Your task to perform on an android device: install app "AliExpress" Image 0: 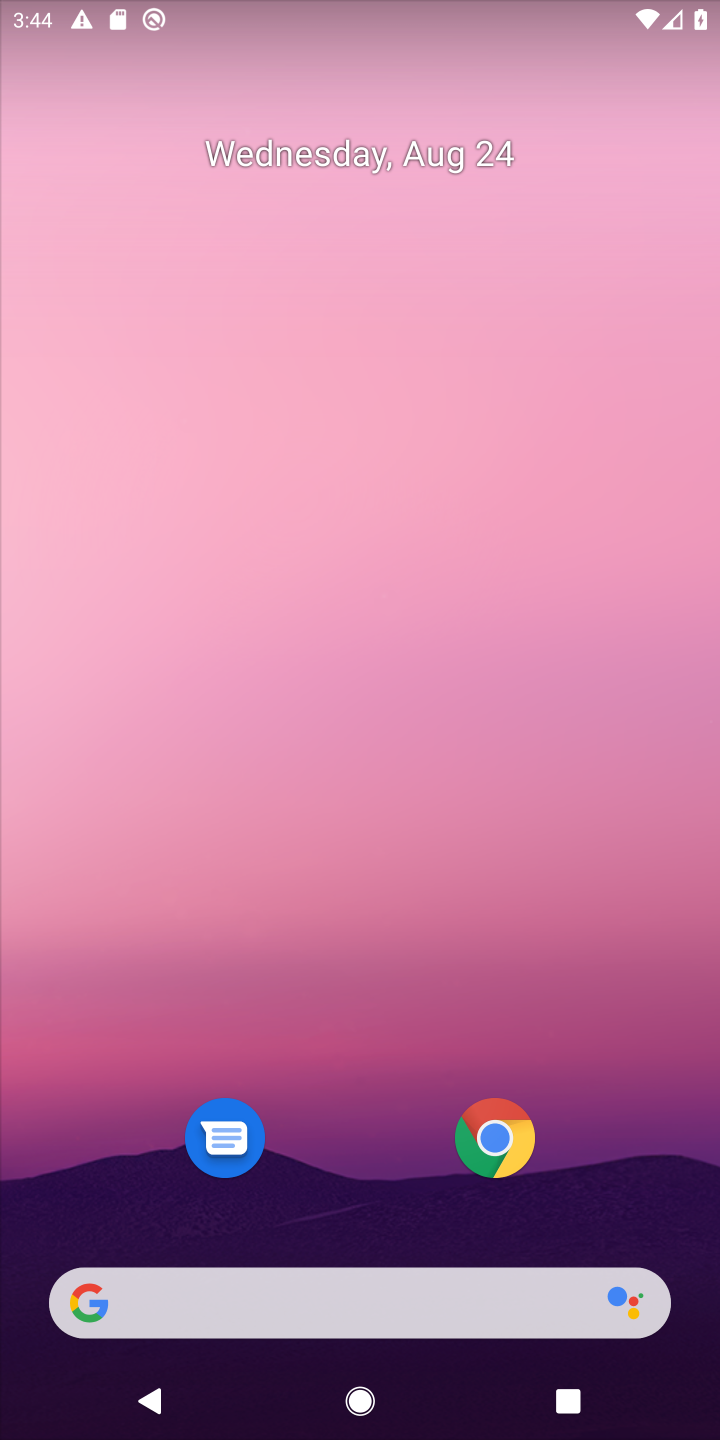
Step 0: drag from (385, 938) to (387, 96)
Your task to perform on an android device: install app "AliExpress" Image 1: 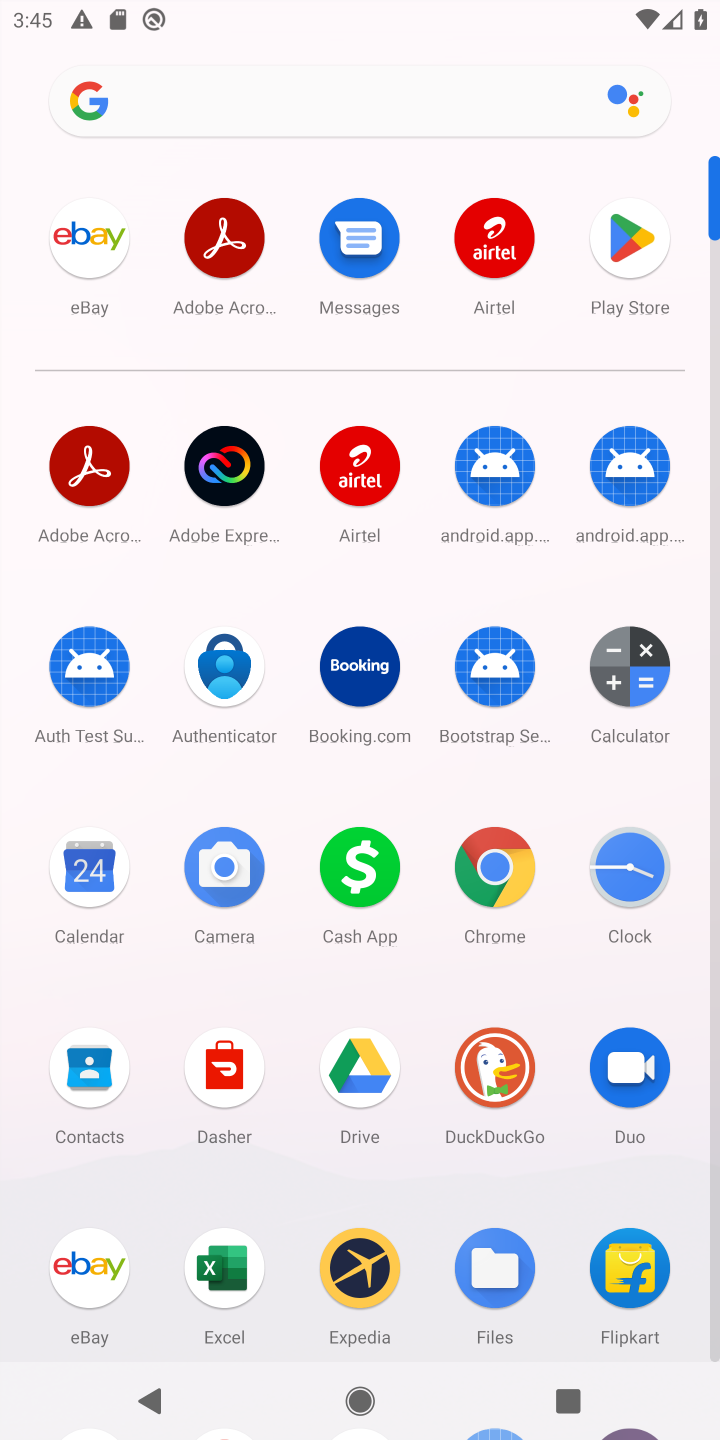
Step 1: click (623, 239)
Your task to perform on an android device: install app "AliExpress" Image 2: 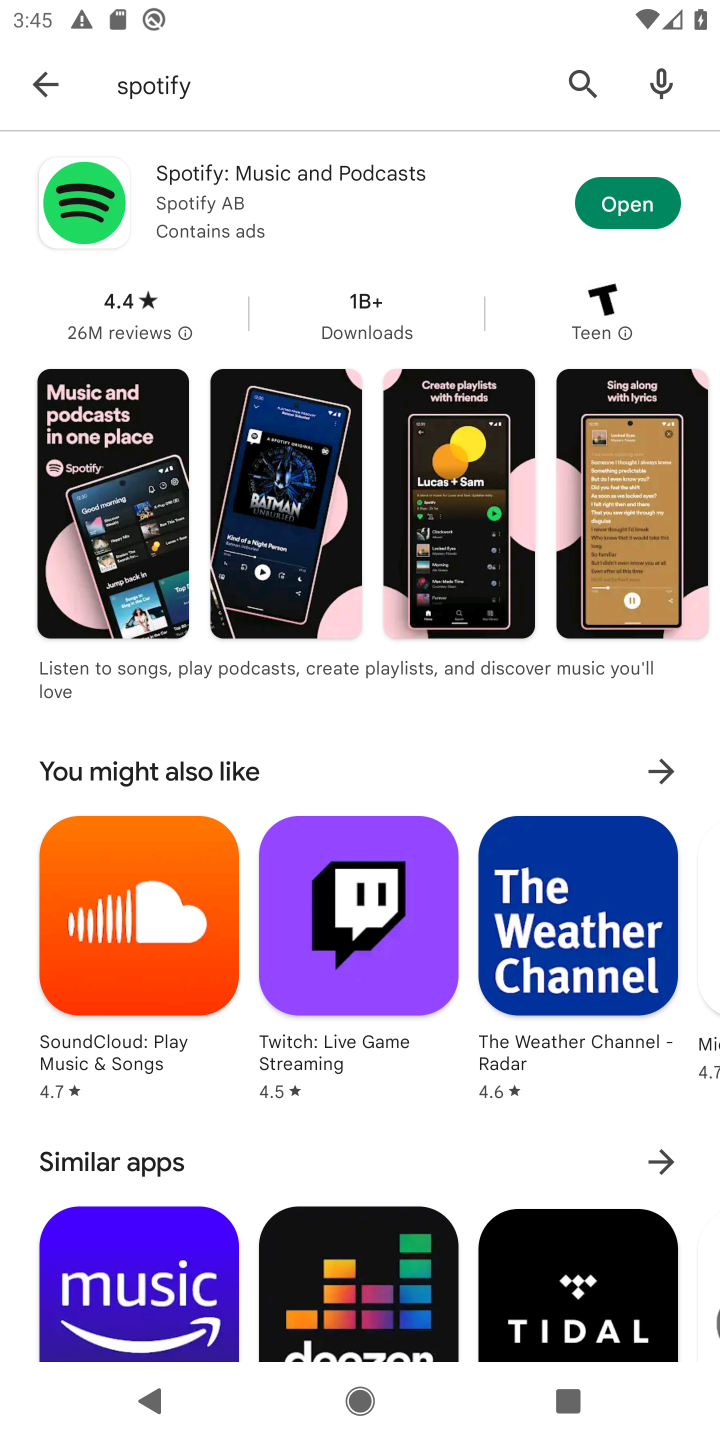
Step 2: click (578, 78)
Your task to perform on an android device: install app "AliExpress" Image 3: 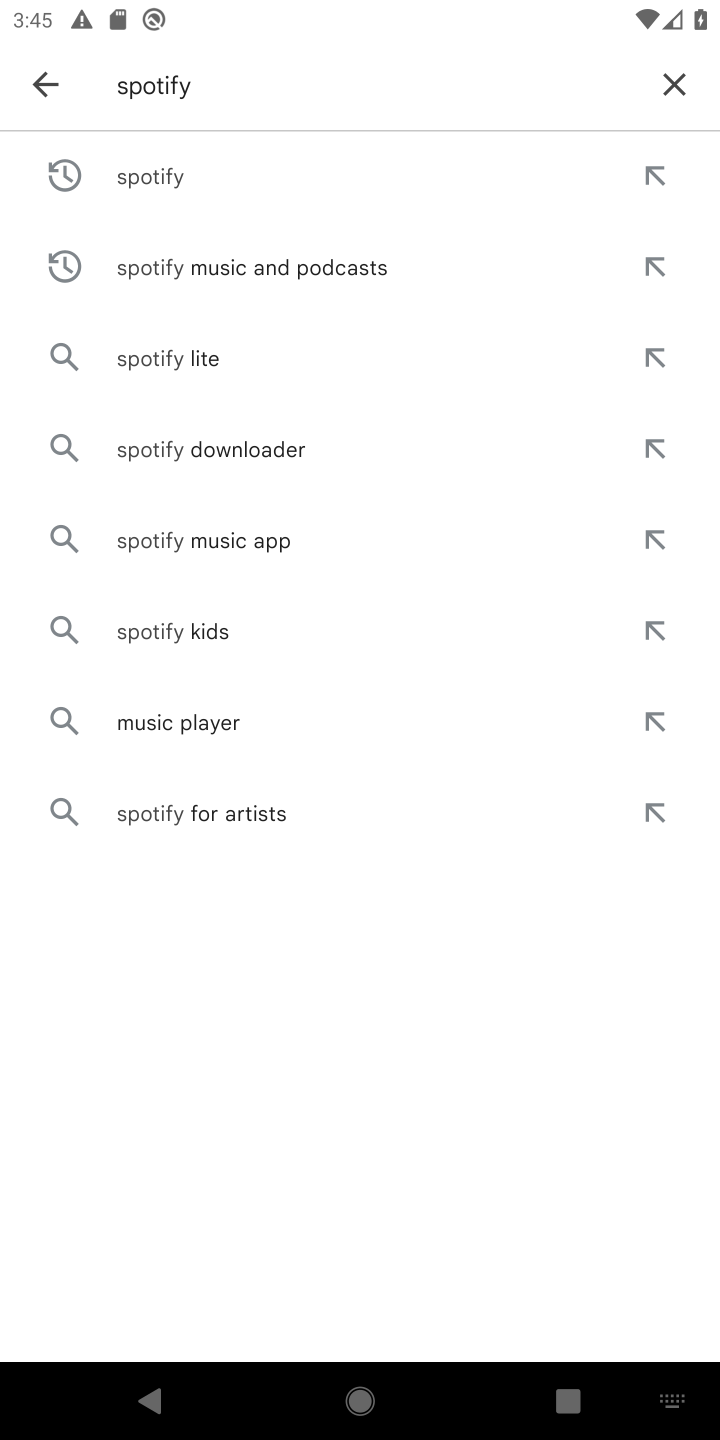
Step 3: click (675, 75)
Your task to perform on an android device: install app "AliExpress" Image 4: 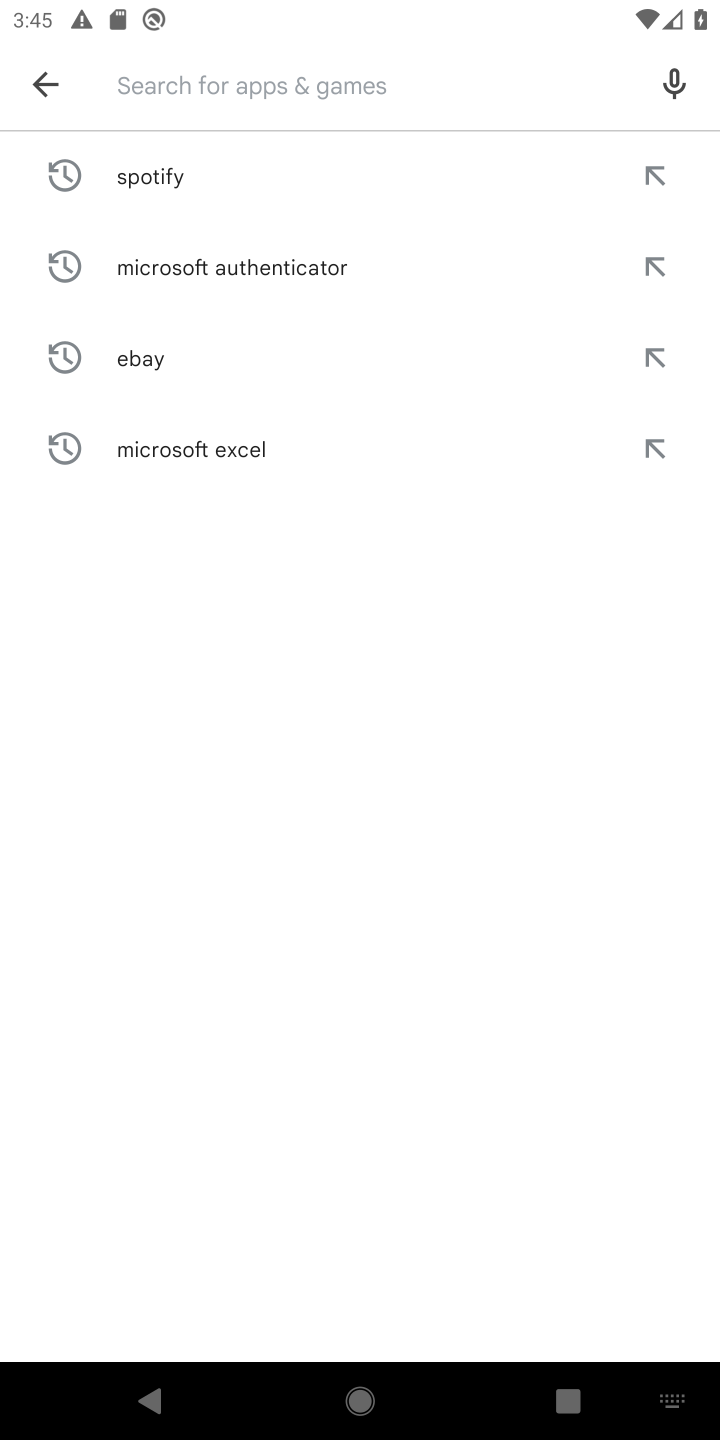
Step 4: type "AliExpress"
Your task to perform on an android device: install app "AliExpress" Image 5: 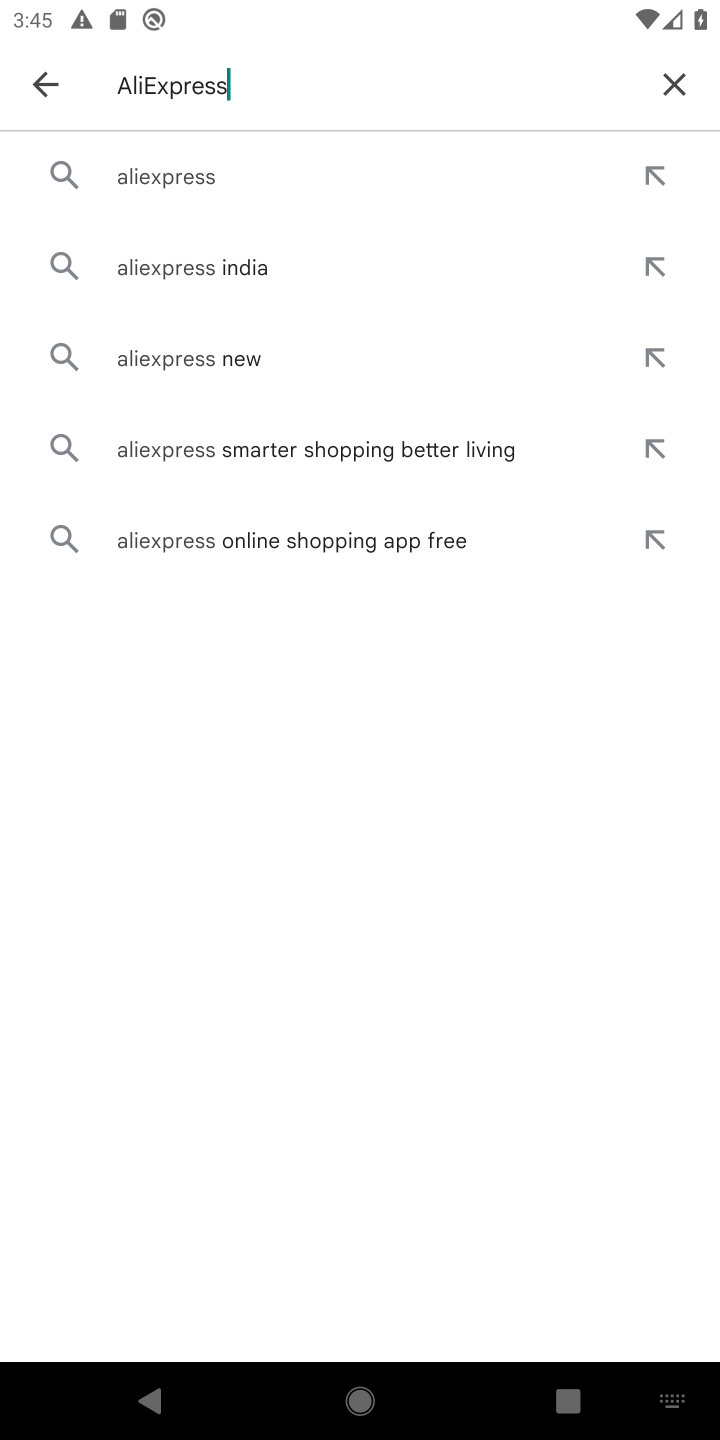
Step 5: click (157, 182)
Your task to perform on an android device: install app "AliExpress" Image 6: 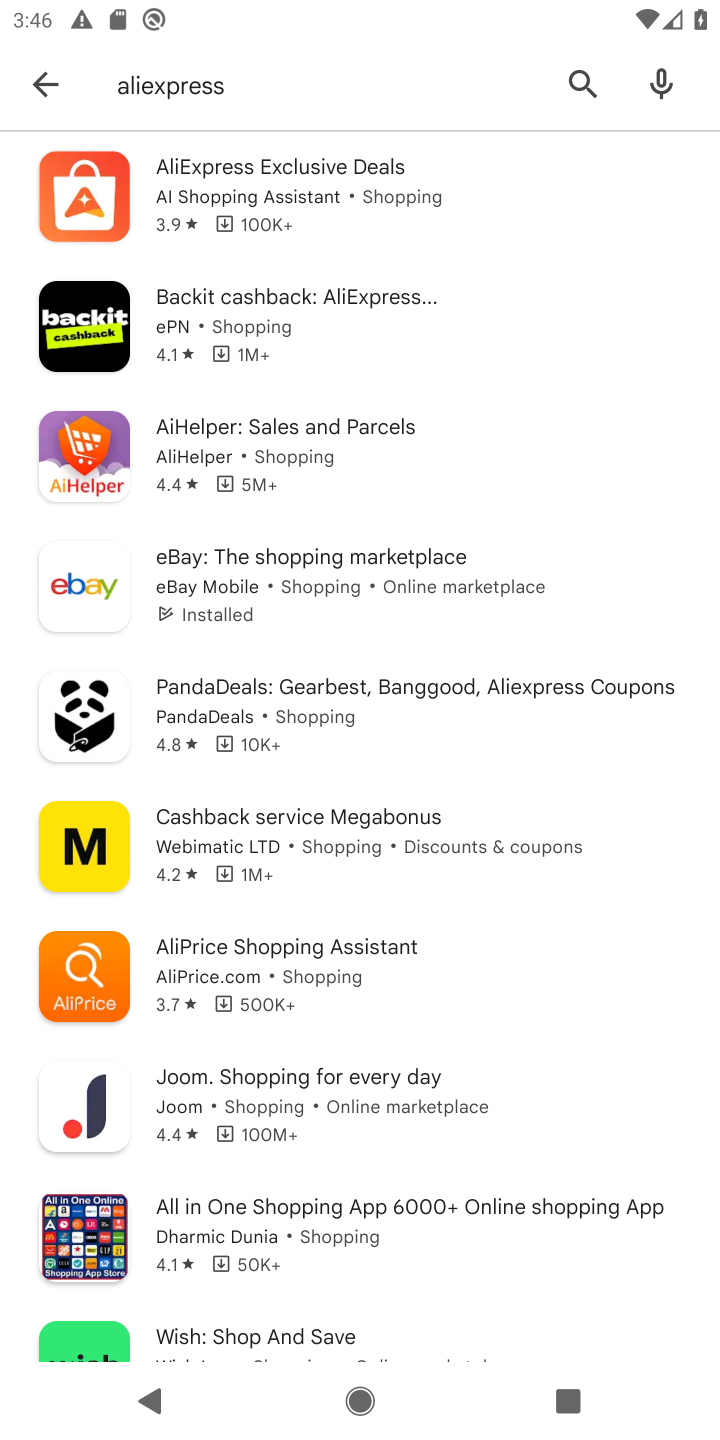
Step 6: click (237, 190)
Your task to perform on an android device: install app "AliExpress" Image 7: 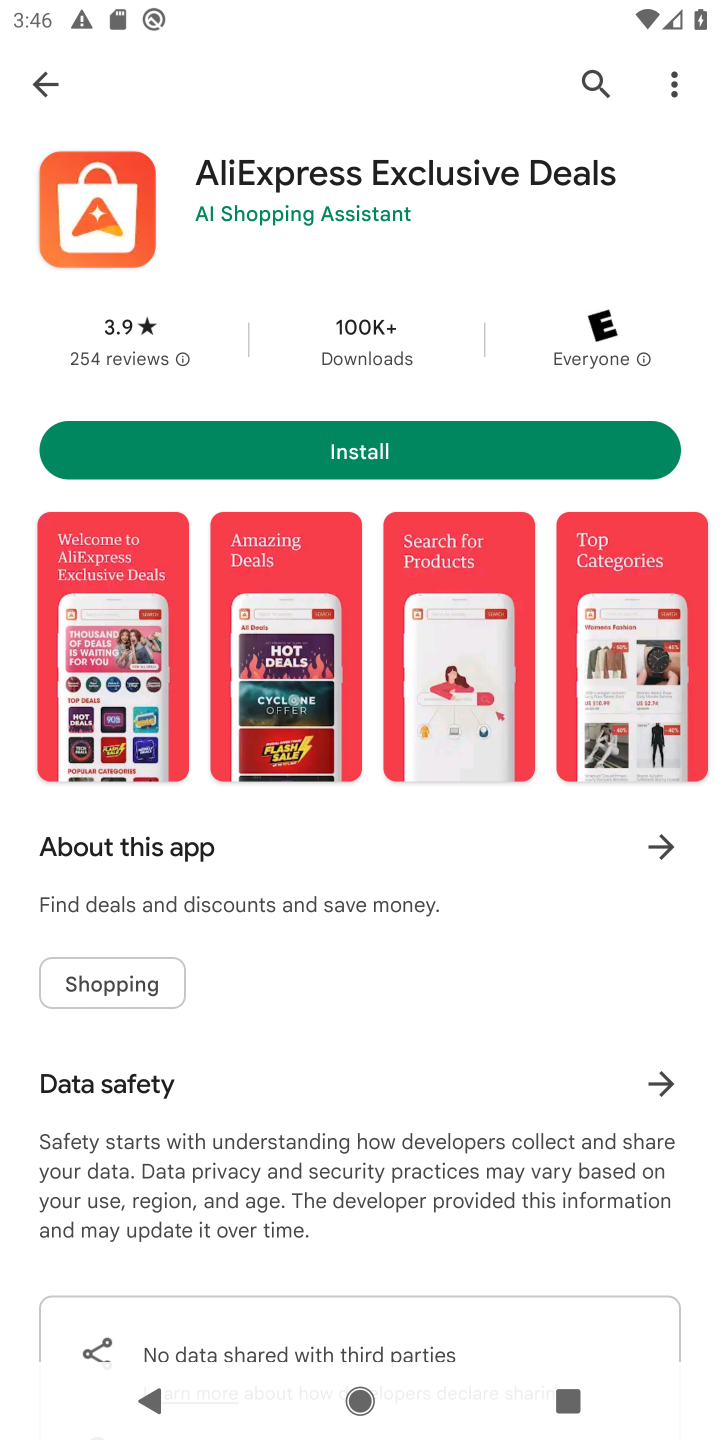
Step 7: click (384, 455)
Your task to perform on an android device: install app "AliExpress" Image 8: 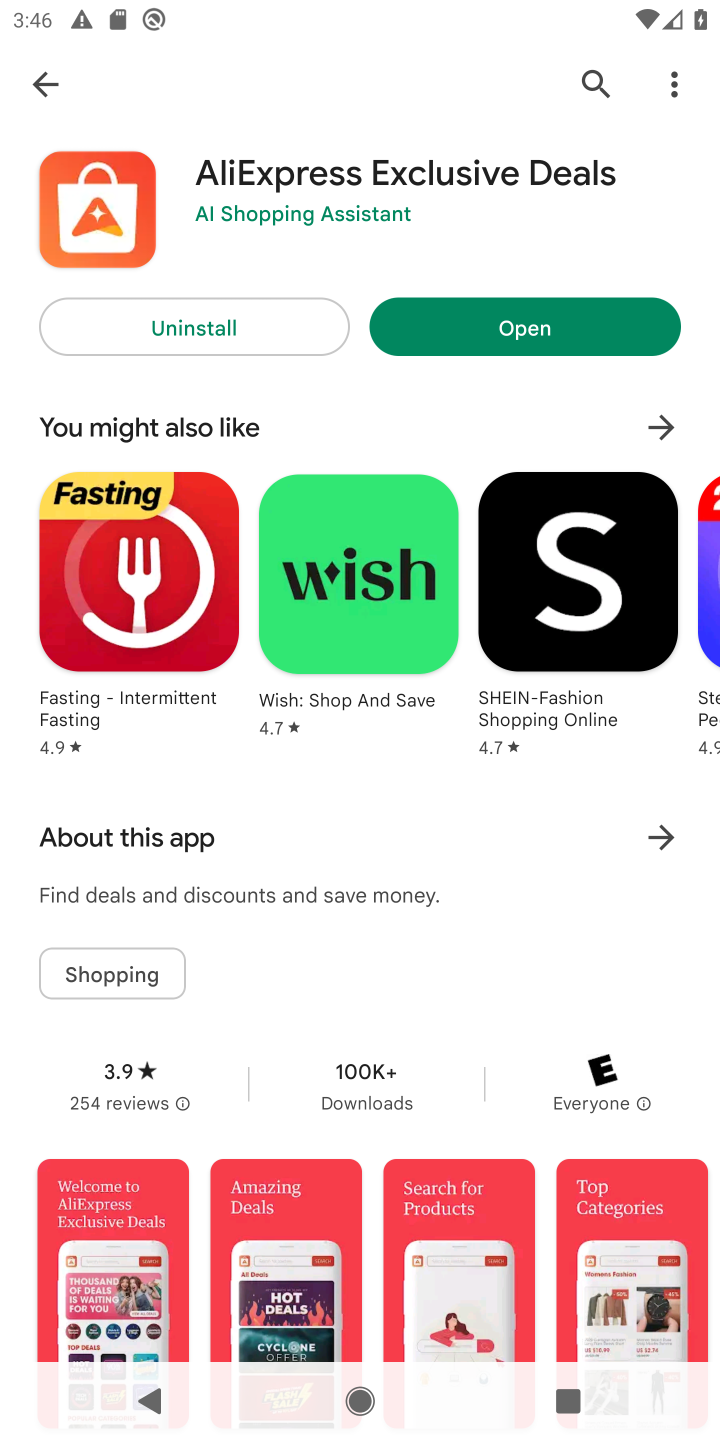
Step 8: task complete